Your task to perform on an android device: Do I have any events tomorrow? Image 0: 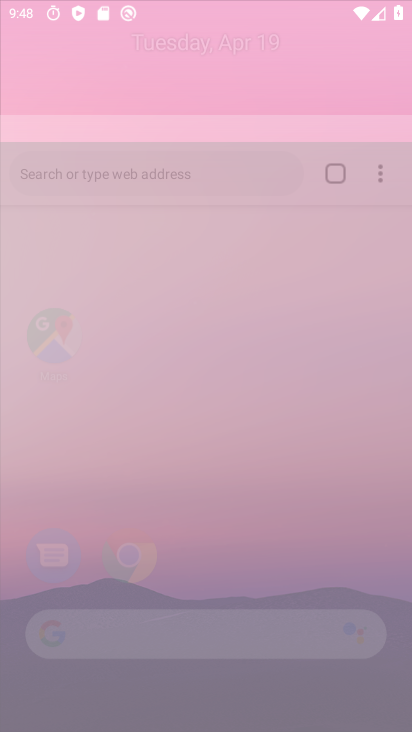
Step 0: drag from (375, 507) to (358, 80)
Your task to perform on an android device: Do I have any events tomorrow? Image 1: 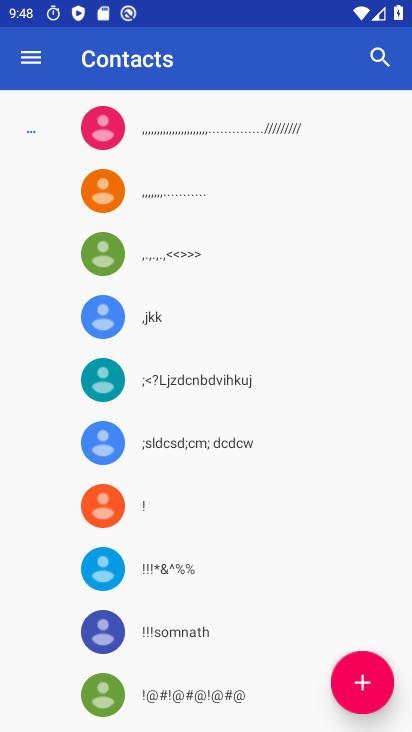
Step 1: click (383, 80)
Your task to perform on an android device: Do I have any events tomorrow? Image 2: 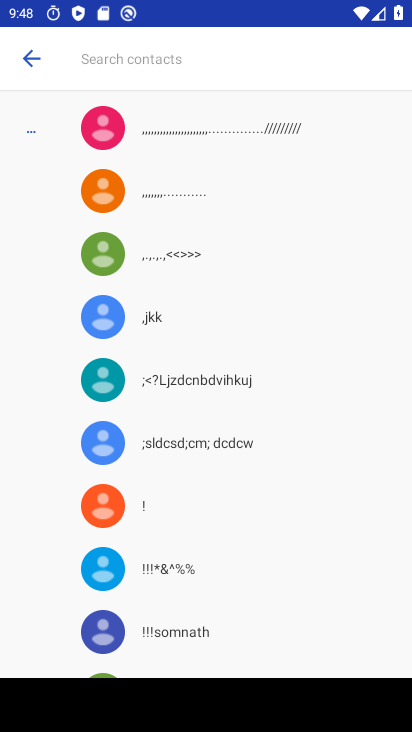
Step 2: press home button
Your task to perform on an android device: Do I have any events tomorrow? Image 3: 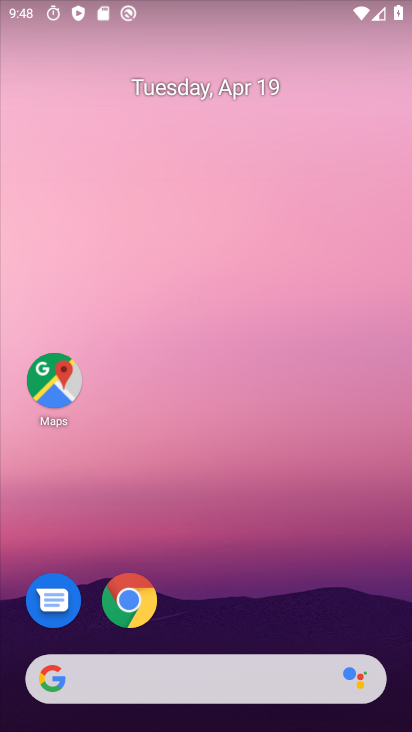
Step 3: drag from (320, 312) to (305, 108)
Your task to perform on an android device: Do I have any events tomorrow? Image 4: 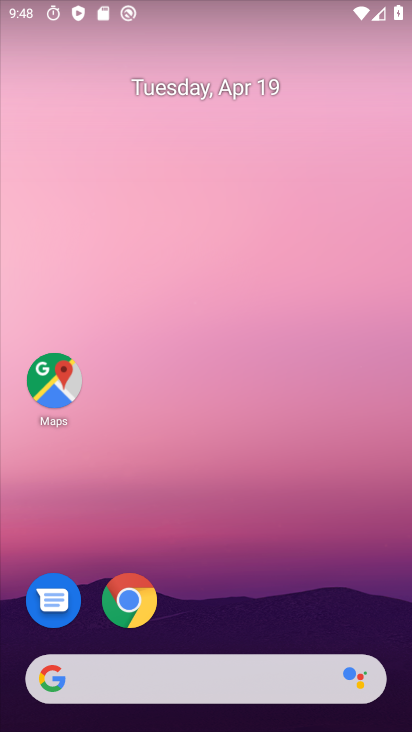
Step 4: drag from (291, 595) to (274, 80)
Your task to perform on an android device: Do I have any events tomorrow? Image 5: 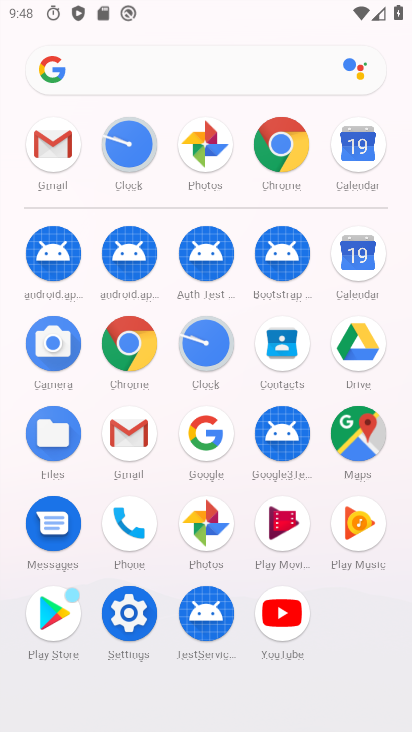
Step 5: click (369, 258)
Your task to perform on an android device: Do I have any events tomorrow? Image 6: 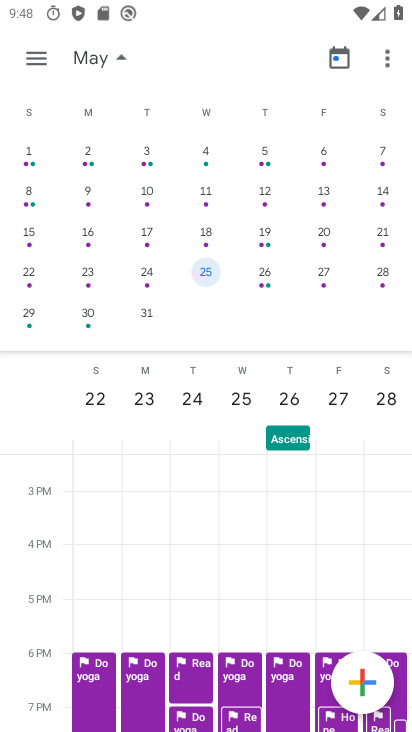
Step 6: click (22, 75)
Your task to perform on an android device: Do I have any events tomorrow? Image 7: 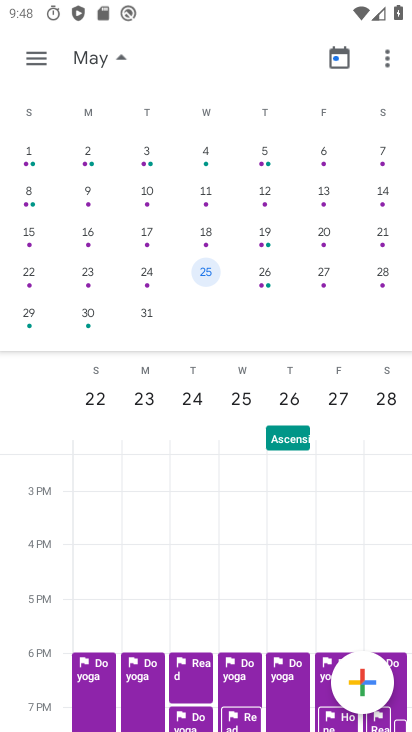
Step 7: click (48, 60)
Your task to perform on an android device: Do I have any events tomorrow? Image 8: 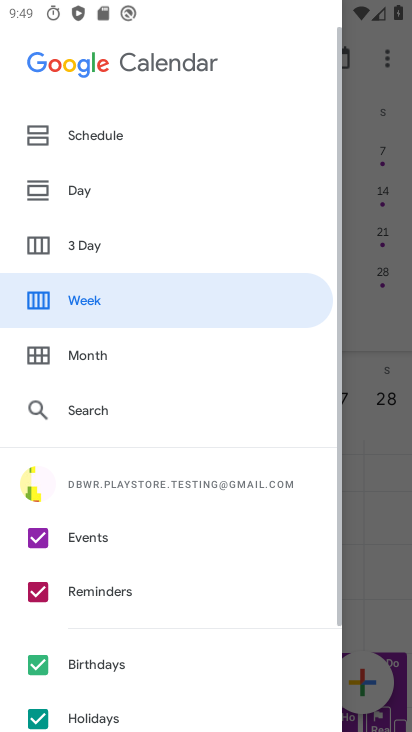
Step 8: drag from (146, 667) to (127, 401)
Your task to perform on an android device: Do I have any events tomorrow? Image 9: 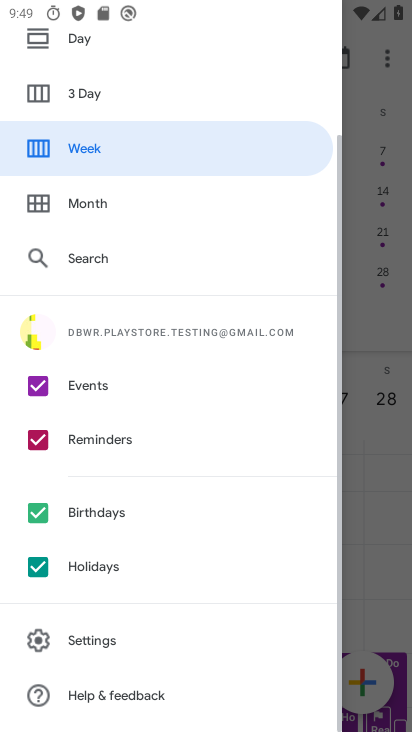
Step 9: click (43, 573)
Your task to perform on an android device: Do I have any events tomorrow? Image 10: 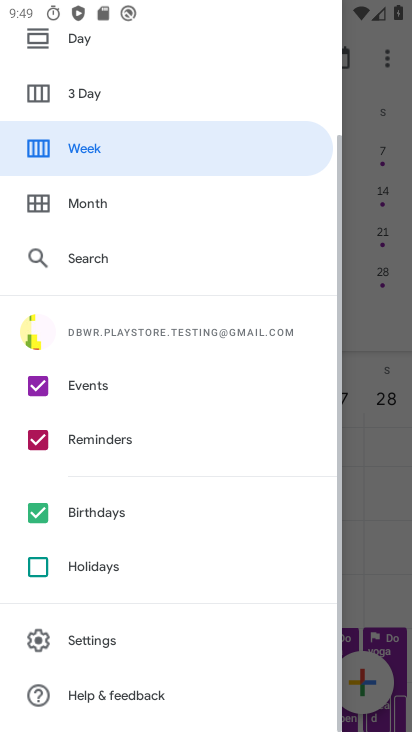
Step 10: click (43, 515)
Your task to perform on an android device: Do I have any events tomorrow? Image 11: 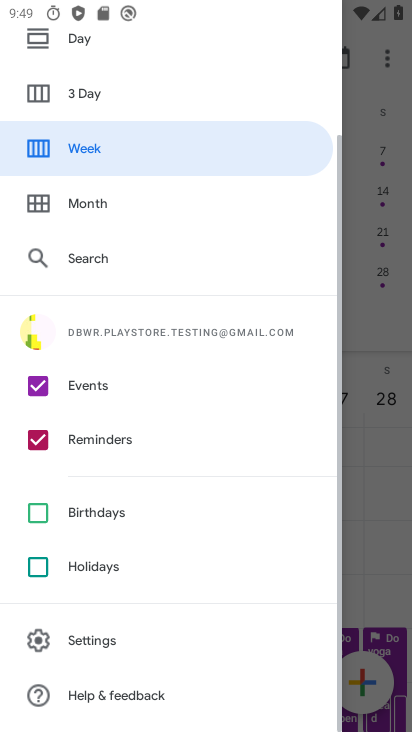
Step 11: click (43, 448)
Your task to perform on an android device: Do I have any events tomorrow? Image 12: 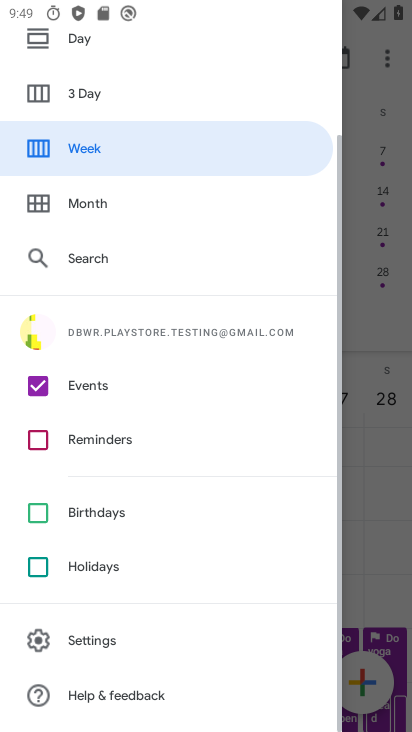
Step 12: click (42, 387)
Your task to perform on an android device: Do I have any events tomorrow? Image 13: 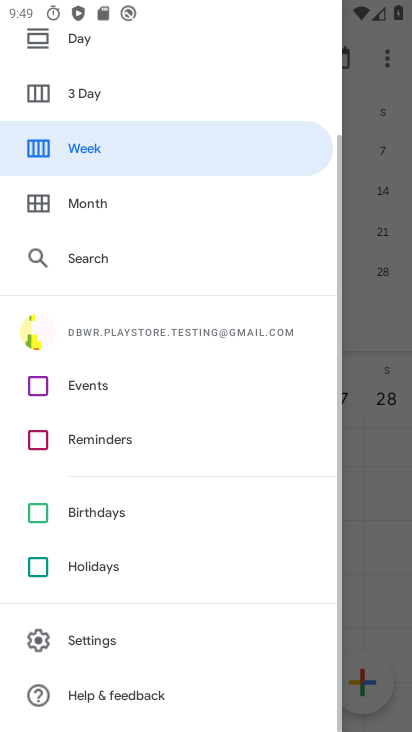
Step 13: click (42, 387)
Your task to perform on an android device: Do I have any events tomorrow? Image 14: 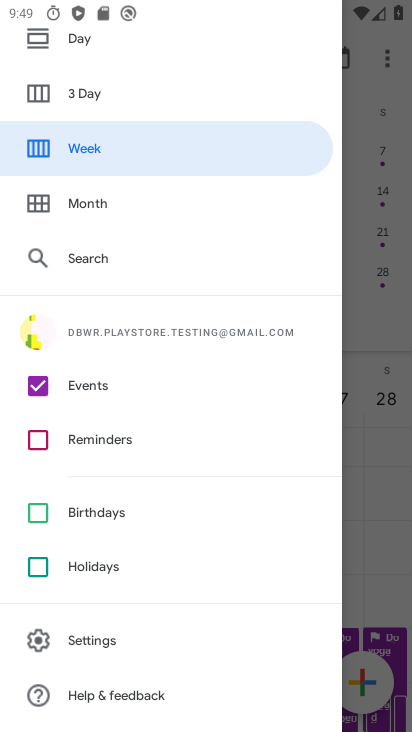
Step 14: click (193, 145)
Your task to perform on an android device: Do I have any events tomorrow? Image 15: 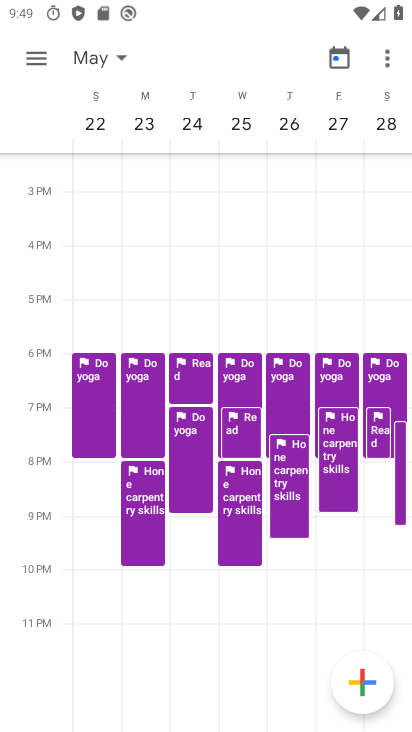
Step 15: click (122, 58)
Your task to perform on an android device: Do I have any events tomorrow? Image 16: 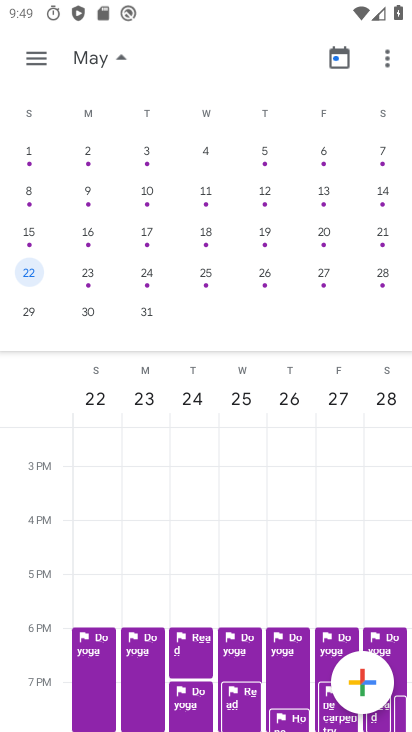
Step 16: drag from (50, 237) to (381, 336)
Your task to perform on an android device: Do I have any events tomorrow? Image 17: 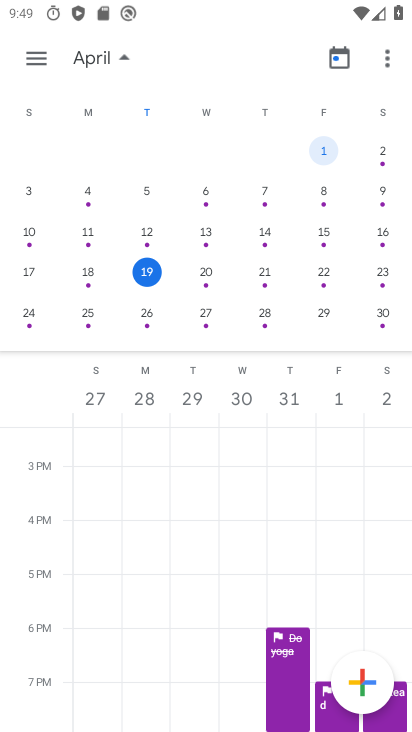
Step 17: click (263, 278)
Your task to perform on an android device: Do I have any events tomorrow? Image 18: 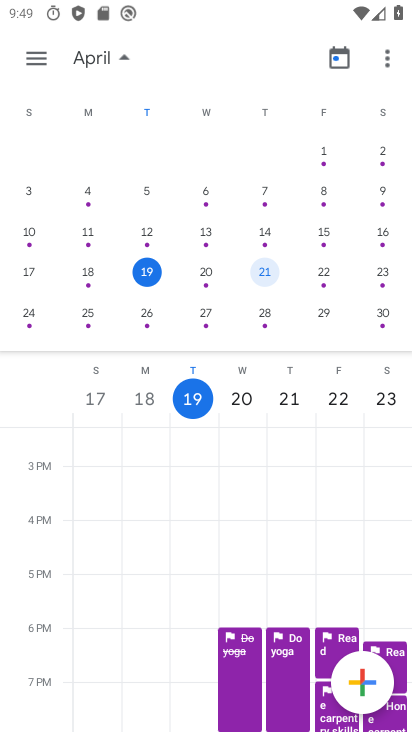
Step 18: click (112, 49)
Your task to perform on an android device: Do I have any events tomorrow? Image 19: 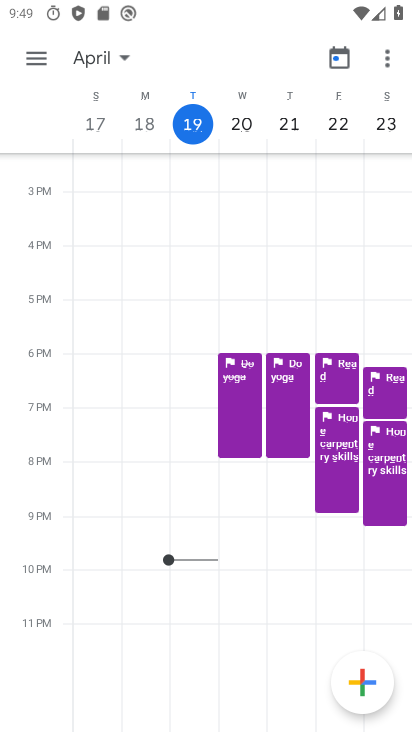
Step 19: task complete